Your task to perform on an android device: turn off notifications in google photos Image 0: 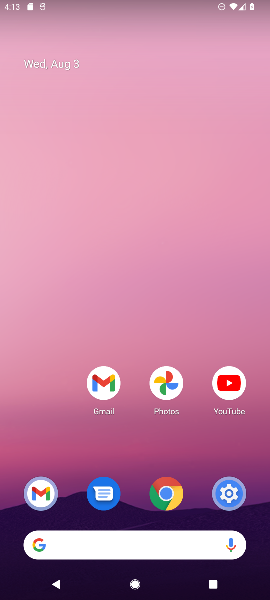
Step 0: drag from (54, 454) to (66, 171)
Your task to perform on an android device: turn off notifications in google photos Image 1: 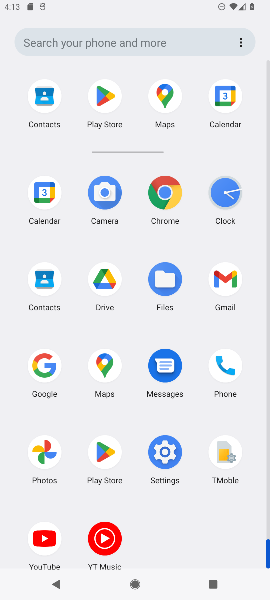
Step 1: click (44, 456)
Your task to perform on an android device: turn off notifications in google photos Image 2: 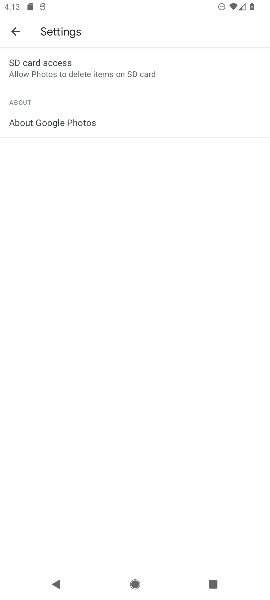
Step 2: click (16, 36)
Your task to perform on an android device: turn off notifications in google photos Image 3: 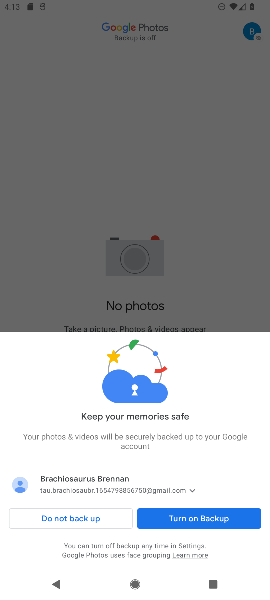
Step 3: click (84, 520)
Your task to perform on an android device: turn off notifications in google photos Image 4: 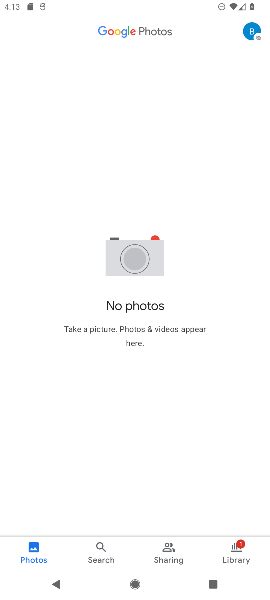
Step 4: click (251, 28)
Your task to perform on an android device: turn off notifications in google photos Image 5: 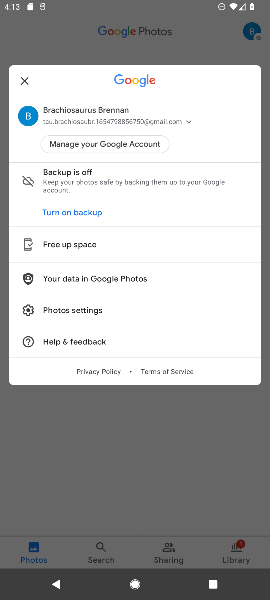
Step 5: drag from (174, 316) to (175, 199)
Your task to perform on an android device: turn off notifications in google photos Image 6: 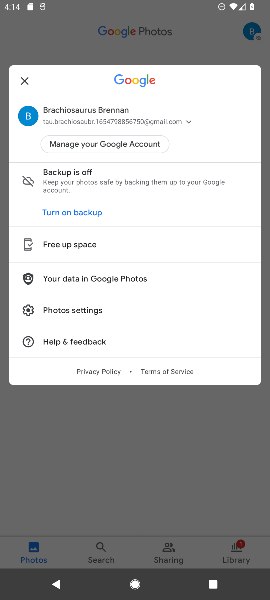
Step 6: click (114, 308)
Your task to perform on an android device: turn off notifications in google photos Image 7: 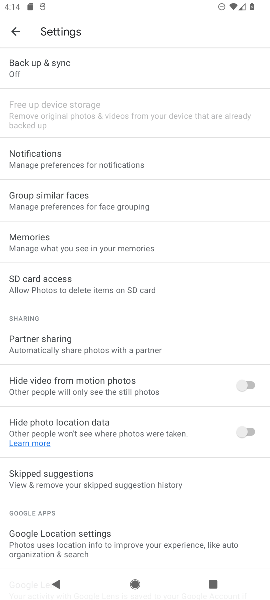
Step 7: drag from (180, 404) to (190, 289)
Your task to perform on an android device: turn off notifications in google photos Image 8: 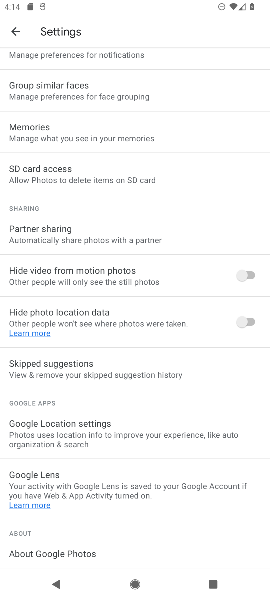
Step 8: drag from (206, 461) to (200, 319)
Your task to perform on an android device: turn off notifications in google photos Image 9: 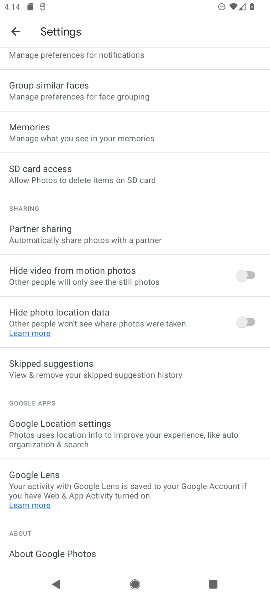
Step 9: drag from (202, 213) to (198, 430)
Your task to perform on an android device: turn off notifications in google photos Image 10: 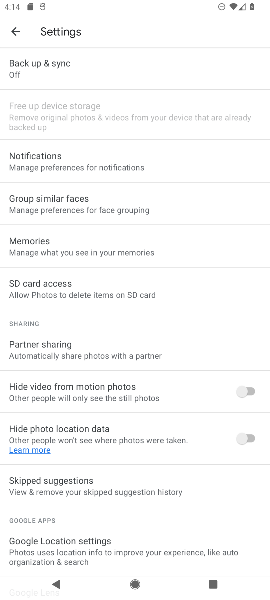
Step 10: click (110, 165)
Your task to perform on an android device: turn off notifications in google photos Image 11: 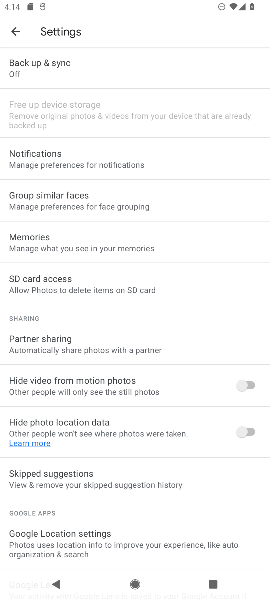
Step 11: click (164, 160)
Your task to perform on an android device: turn off notifications in google photos Image 12: 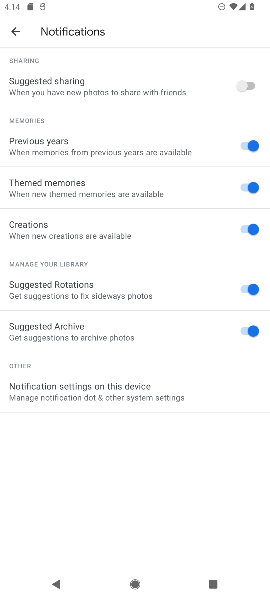
Step 12: drag from (171, 449) to (175, 363)
Your task to perform on an android device: turn off notifications in google photos Image 13: 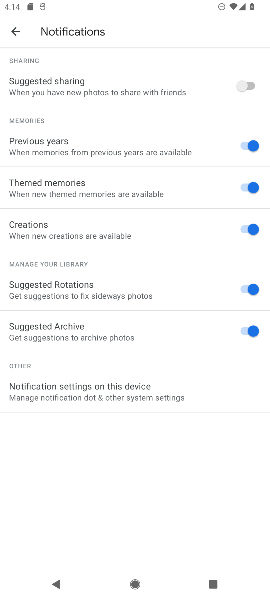
Step 13: click (151, 389)
Your task to perform on an android device: turn off notifications in google photos Image 14: 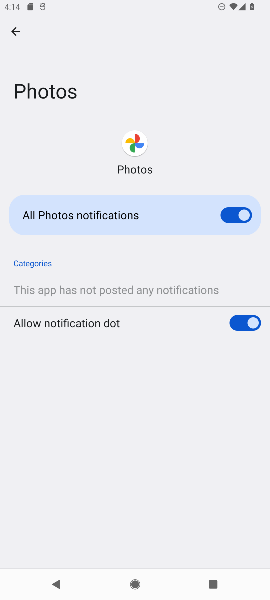
Step 14: click (238, 213)
Your task to perform on an android device: turn off notifications in google photos Image 15: 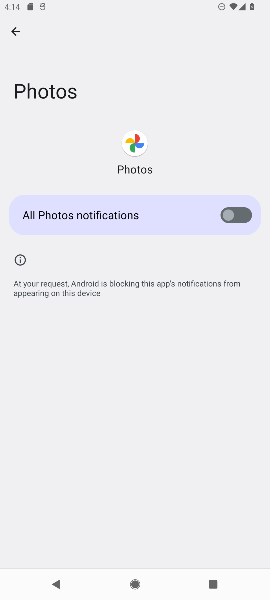
Step 15: task complete